Your task to perform on an android device: Open CNN.com Image 0: 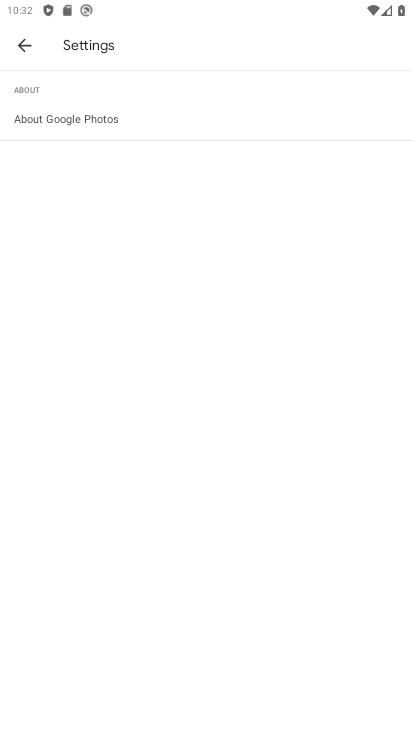
Step 0: press home button
Your task to perform on an android device: Open CNN.com Image 1: 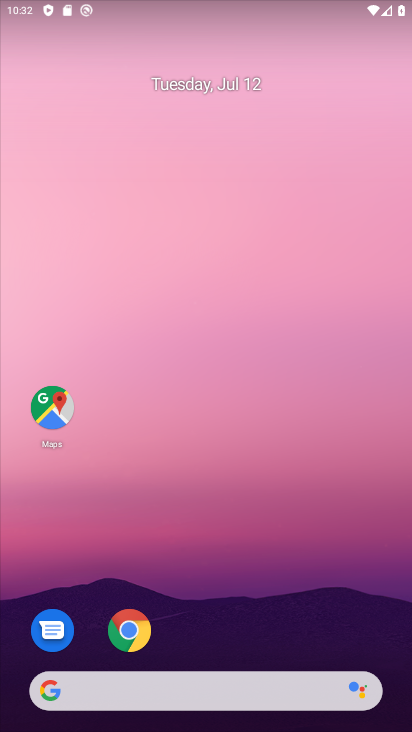
Step 1: drag from (356, 621) to (10, 19)
Your task to perform on an android device: Open CNN.com Image 2: 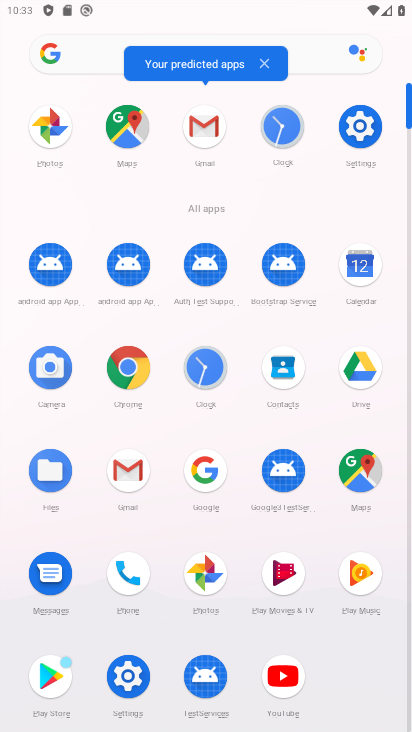
Step 2: click (215, 468)
Your task to perform on an android device: Open CNN.com Image 3: 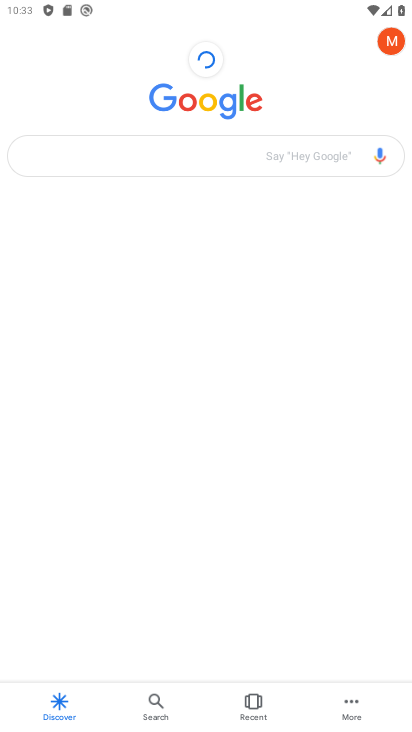
Step 3: click (149, 164)
Your task to perform on an android device: Open CNN.com Image 4: 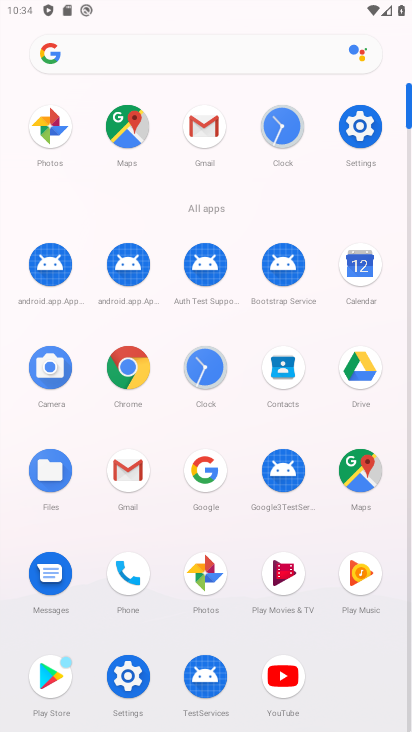
Step 4: click (194, 475)
Your task to perform on an android device: Open CNN.com Image 5: 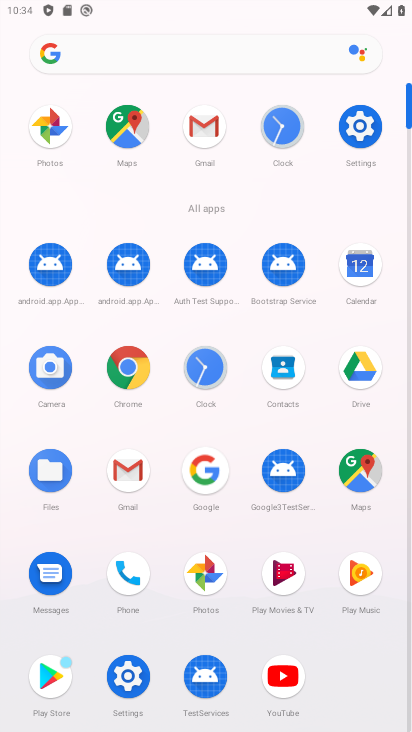
Step 5: click (211, 474)
Your task to perform on an android device: Open CNN.com Image 6: 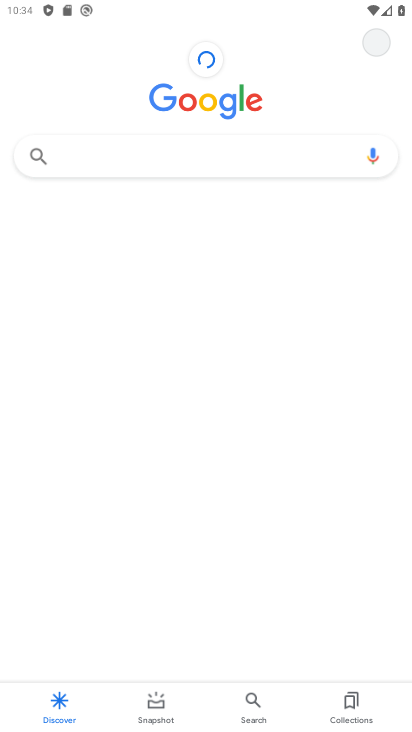
Step 6: click (169, 147)
Your task to perform on an android device: Open CNN.com Image 7: 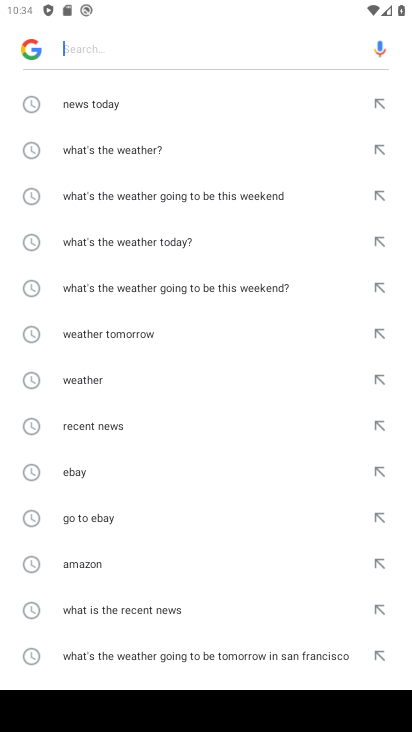
Step 7: type "cnn.com"
Your task to perform on an android device: Open CNN.com Image 8: 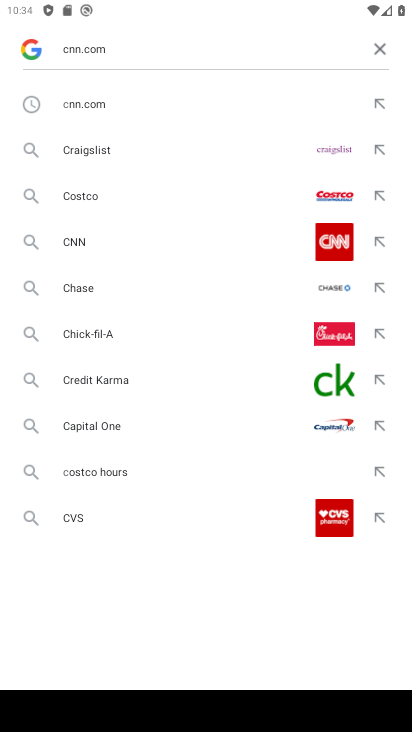
Step 8: click (100, 103)
Your task to perform on an android device: Open CNN.com Image 9: 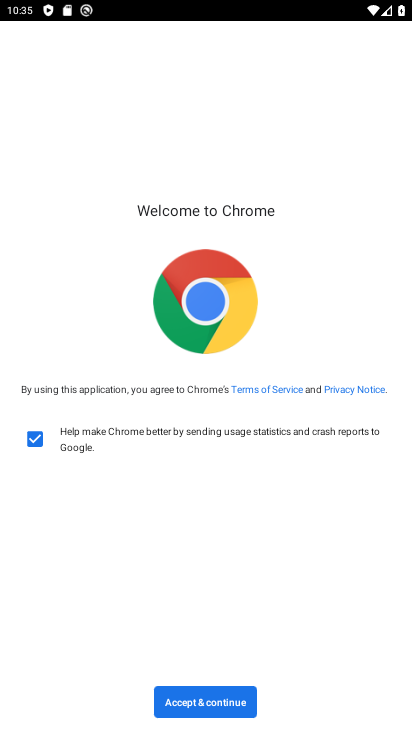
Step 9: click (227, 697)
Your task to perform on an android device: Open CNN.com Image 10: 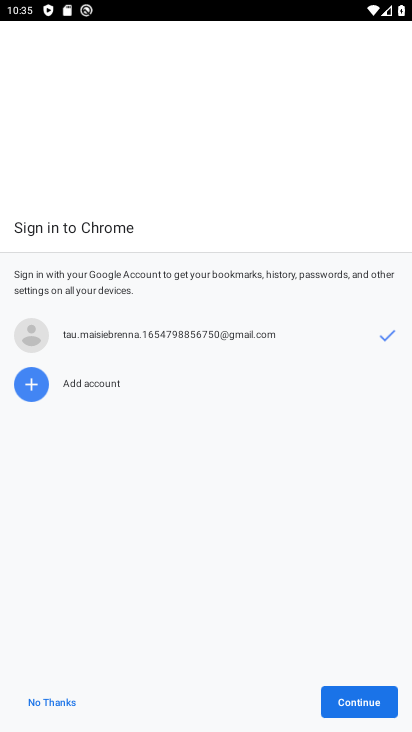
Step 10: click (335, 697)
Your task to perform on an android device: Open CNN.com Image 11: 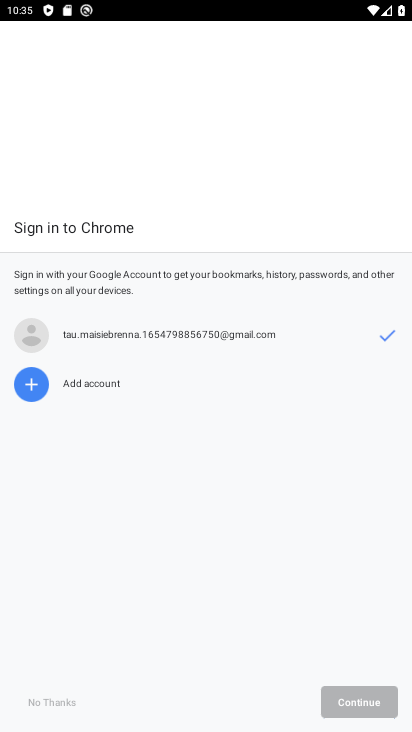
Step 11: click (367, 705)
Your task to perform on an android device: Open CNN.com Image 12: 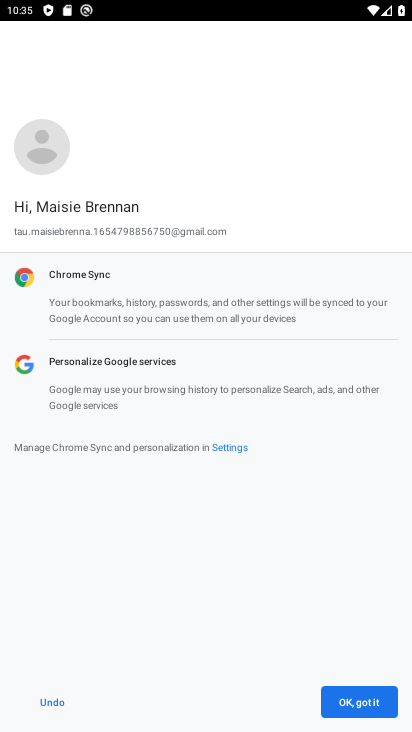
Step 12: click (367, 705)
Your task to perform on an android device: Open CNN.com Image 13: 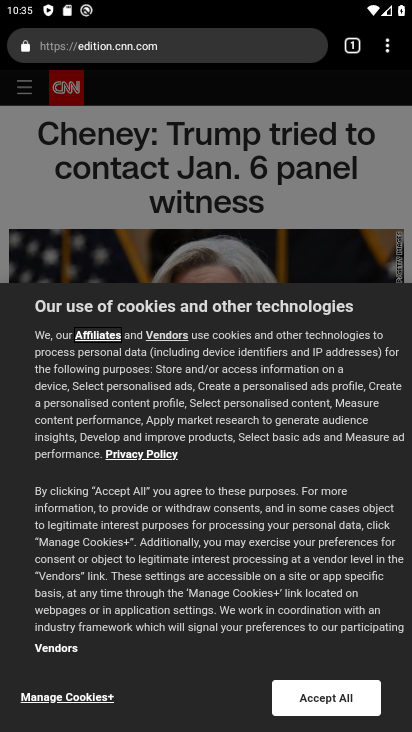
Step 13: task complete